Your task to perform on an android device: turn smart compose on in the gmail app Image 0: 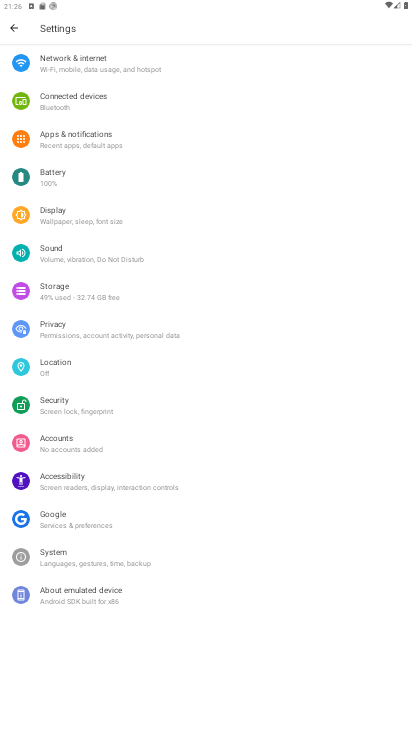
Step 0: press home button
Your task to perform on an android device: turn smart compose on in the gmail app Image 1: 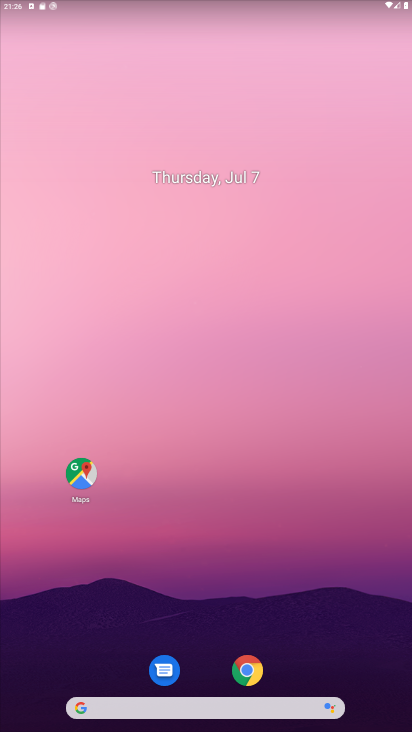
Step 1: drag from (17, 622) to (179, 92)
Your task to perform on an android device: turn smart compose on in the gmail app Image 2: 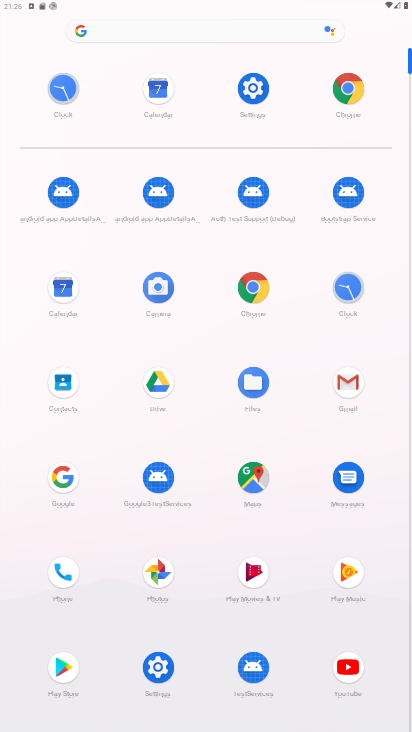
Step 2: click (345, 383)
Your task to perform on an android device: turn smart compose on in the gmail app Image 3: 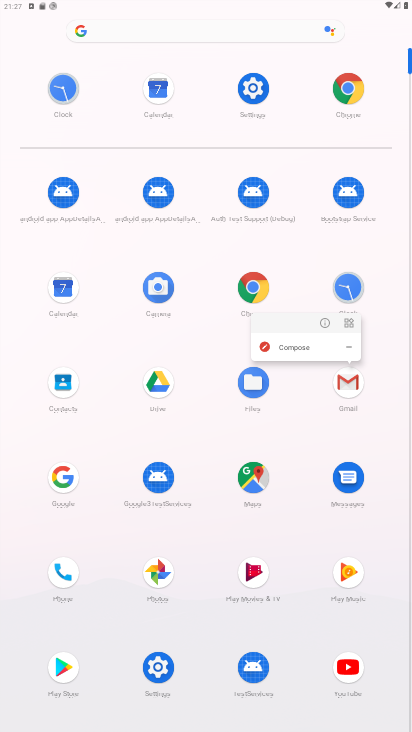
Step 3: click (356, 392)
Your task to perform on an android device: turn smart compose on in the gmail app Image 4: 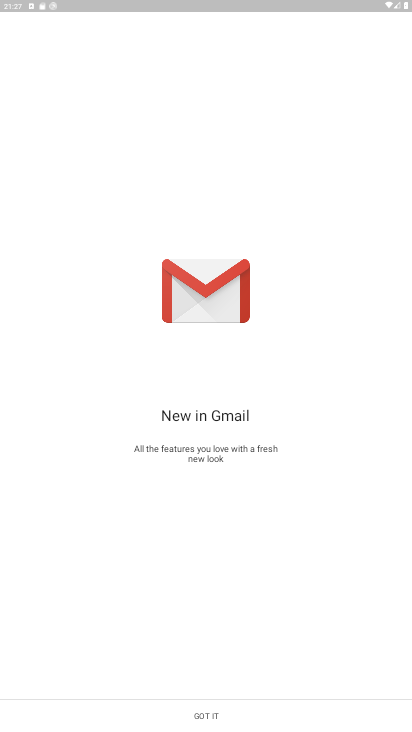
Step 4: click (254, 721)
Your task to perform on an android device: turn smart compose on in the gmail app Image 5: 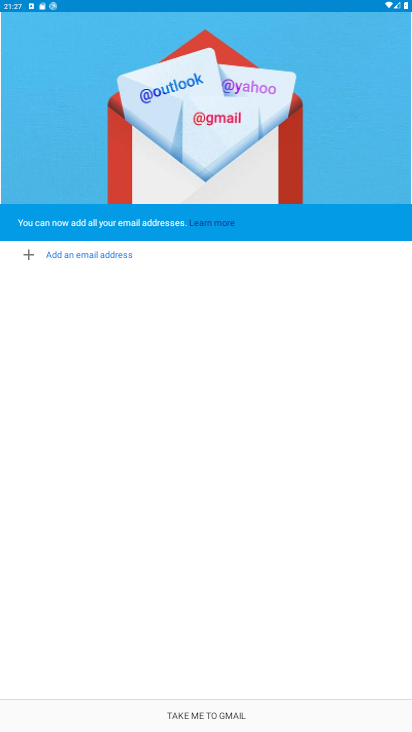
Step 5: task complete